Your task to perform on an android device: Open Youtube and go to "Your channel" Image 0: 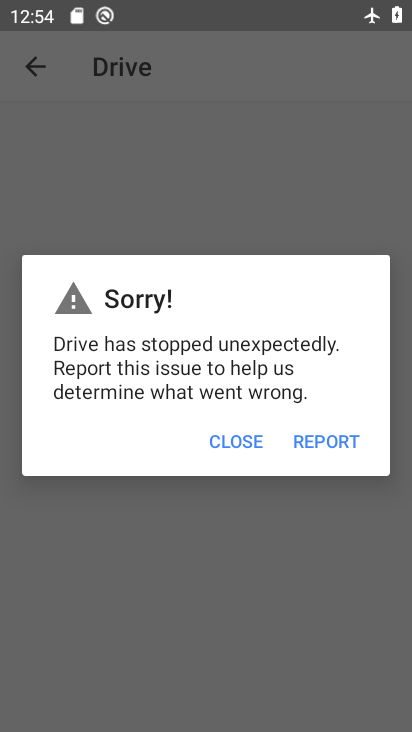
Step 0: press home button
Your task to perform on an android device: Open Youtube and go to "Your channel" Image 1: 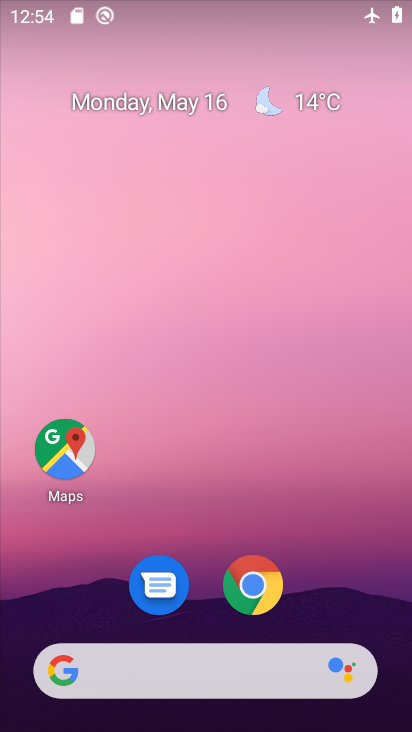
Step 1: drag from (324, 535) to (322, 4)
Your task to perform on an android device: Open Youtube and go to "Your channel" Image 2: 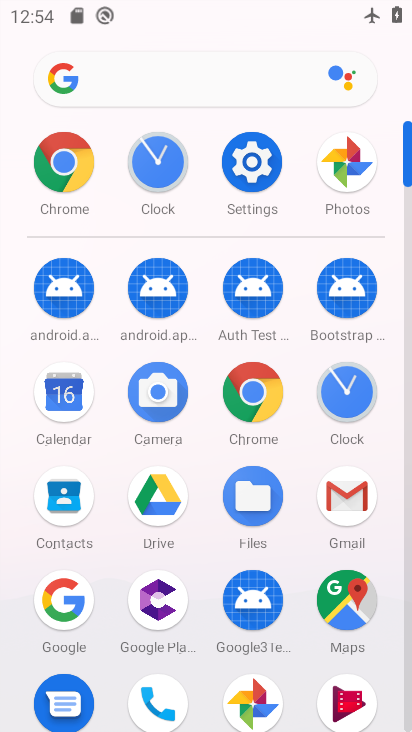
Step 2: drag from (210, 586) to (225, 210)
Your task to perform on an android device: Open Youtube and go to "Your channel" Image 3: 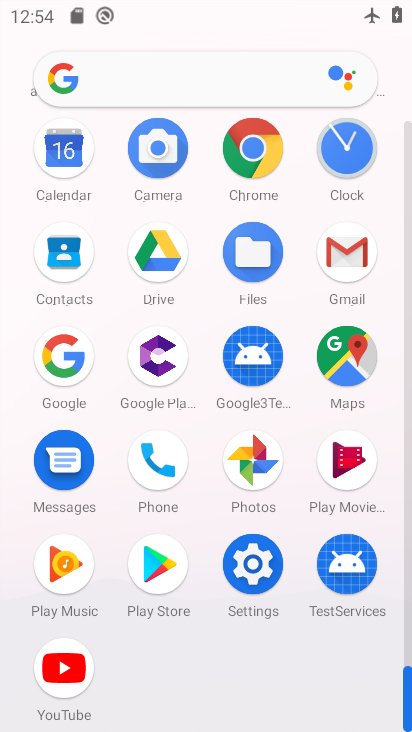
Step 3: click (74, 670)
Your task to perform on an android device: Open Youtube and go to "Your channel" Image 4: 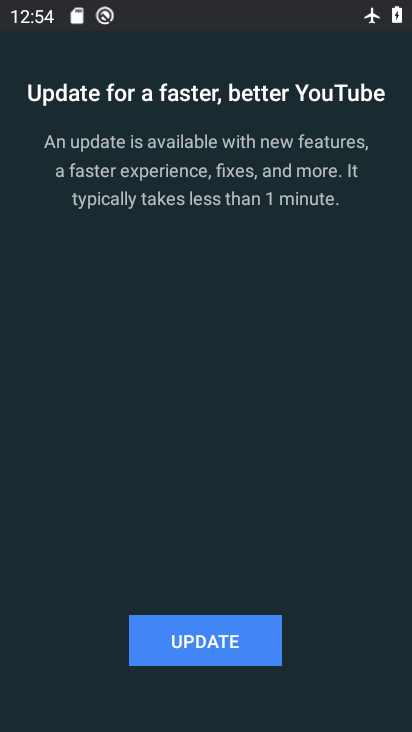
Step 4: click (193, 635)
Your task to perform on an android device: Open Youtube and go to "Your channel" Image 5: 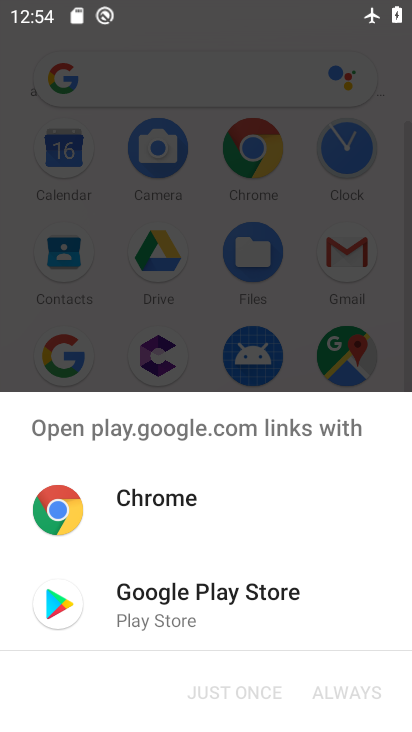
Step 5: click (171, 587)
Your task to perform on an android device: Open Youtube and go to "Your channel" Image 6: 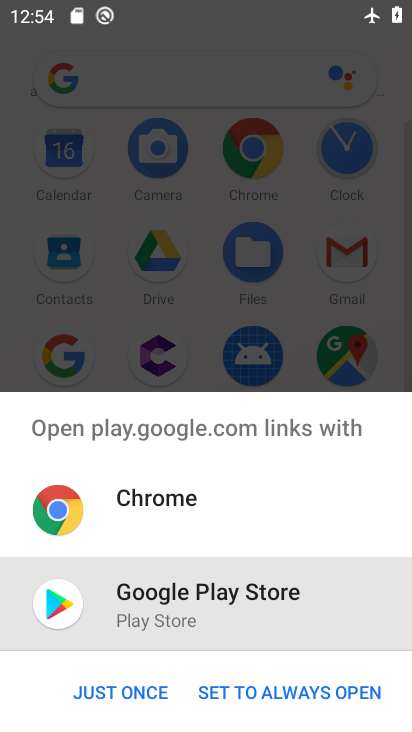
Step 6: click (142, 685)
Your task to perform on an android device: Open Youtube and go to "Your channel" Image 7: 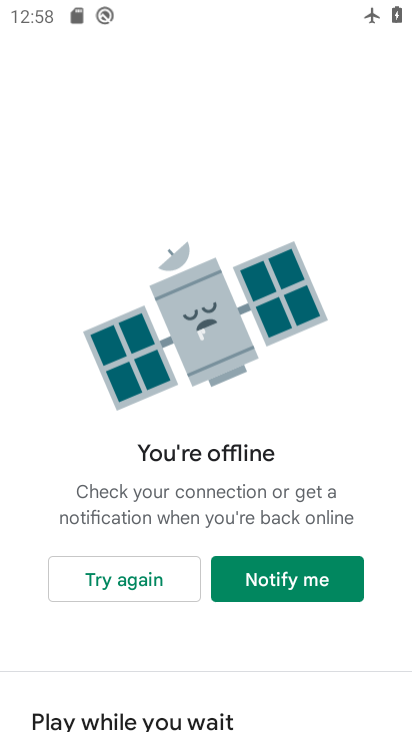
Step 7: task complete